Your task to perform on an android device: delete browsing data in the chrome app Image 0: 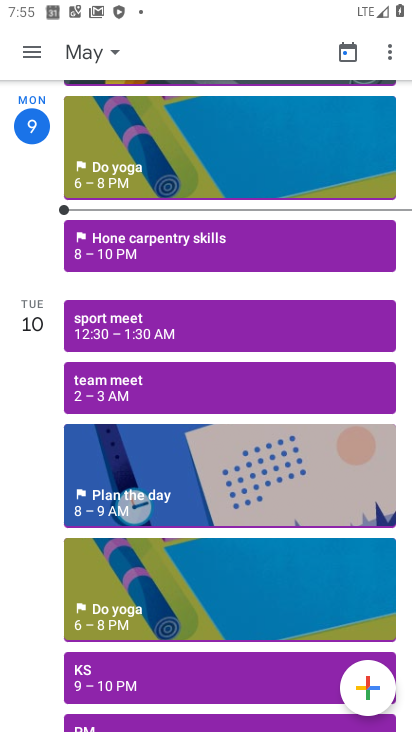
Step 0: press home button
Your task to perform on an android device: delete browsing data in the chrome app Image 1: 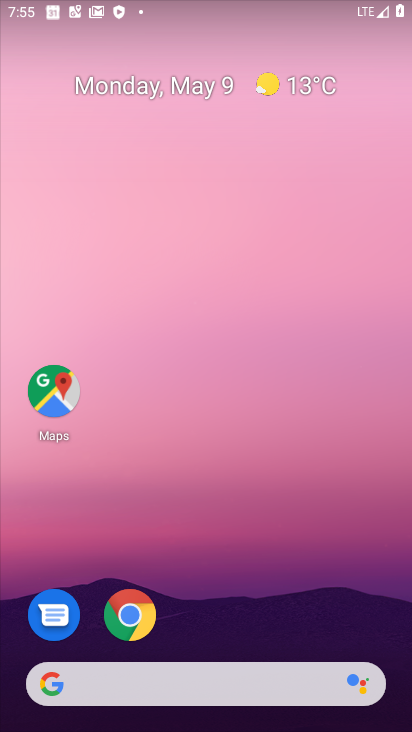
Step 1: click (129, 624)
Your task to perform on an android device: delete browsing data in the chrome app Image 2: 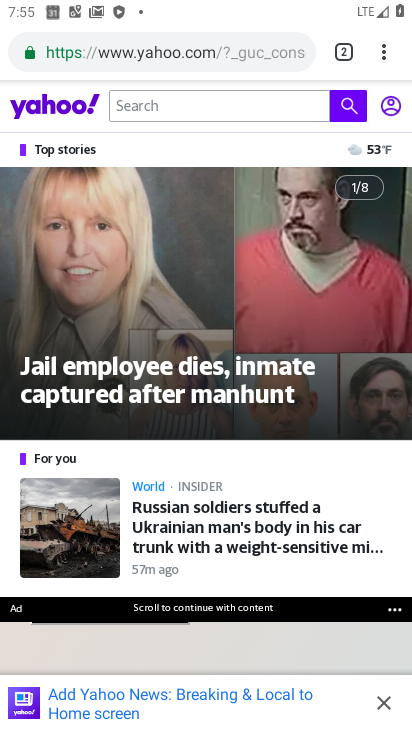
Step 2: click (374, 53)
Your task to perform on an android device: delete browsing data in the chrome app Image 3: 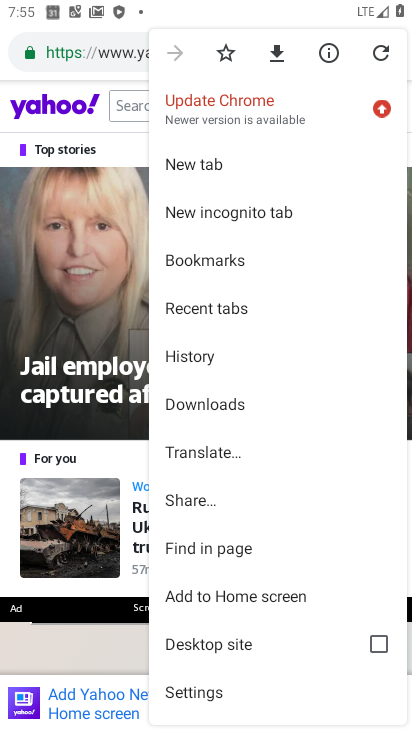
Step 3: click (188, 350)
Your task to perform on an android device: delete browsing data in the chrome app Image 4: 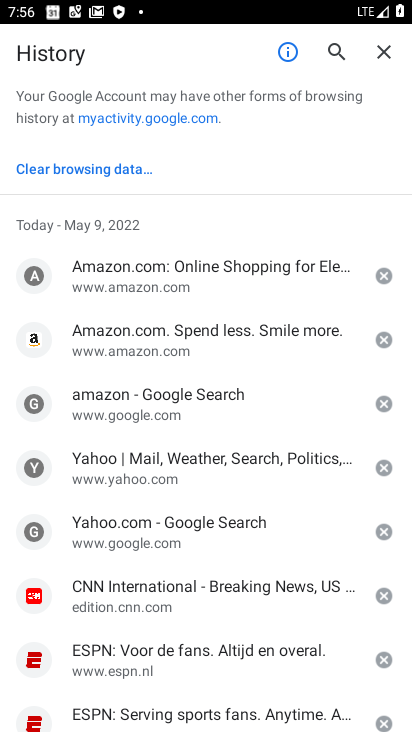
Step 4: click (132, 165)
Your task to perform on an android device: delete browsing data in the chrome app Image 5: 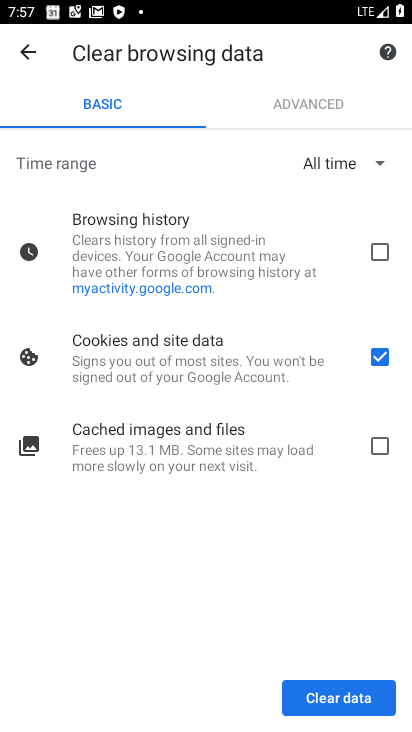
Step 5: click (348, 689)
Your task to perform on an android device: delete browsing data in the chrome app Image 6: 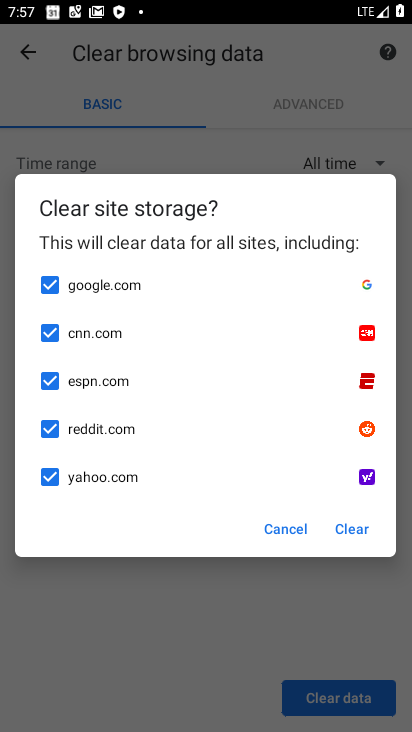
Step 6: click (359, 522)
Your task to perform on an android device: delete browsing data in the chrome app Image 7: 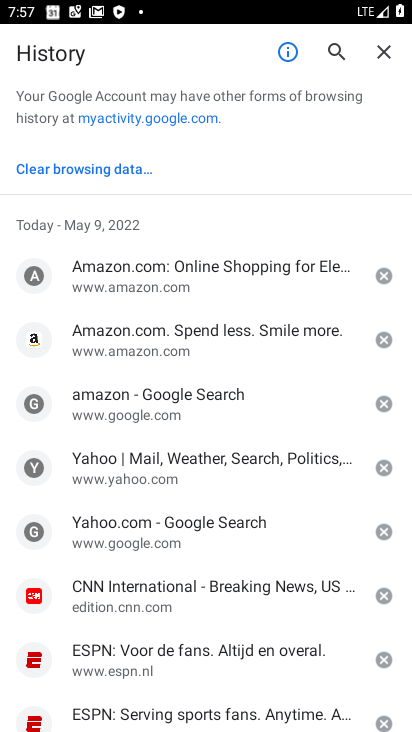
Step 7: click (114, 166)
Your task to perform on an android device: delete browsing data in the chrome app Image 8: 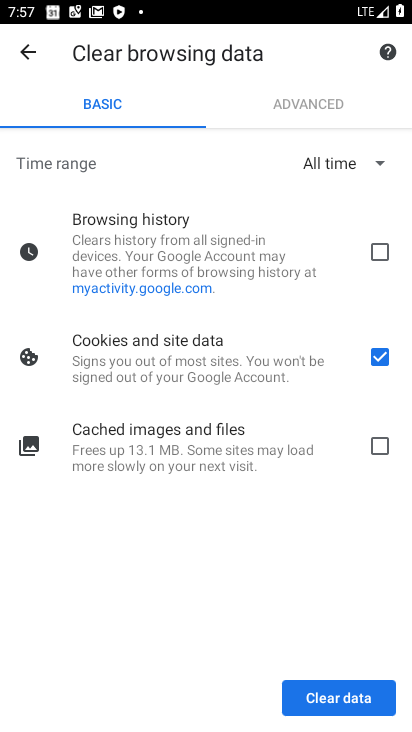
Step 8: click (379, 260)
Your task to perform on an android device: delete browsing data in the chrome app Image 9: 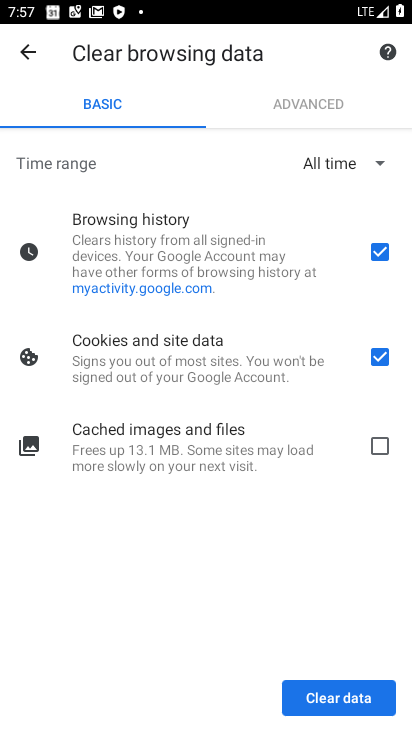
Step 9: click (380, 362)
Your task to perform on an android device: delete browsing data in the chrome app Image 10: 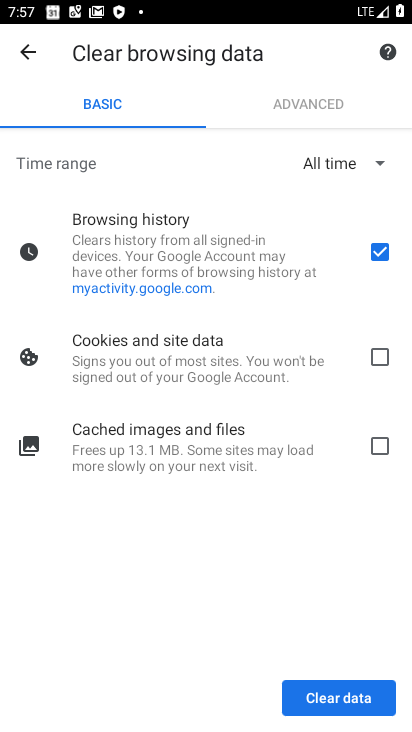
Step 10: click (329, 691)
Your task to perform on an android device: delete browsing data in the chrome app Image 11: 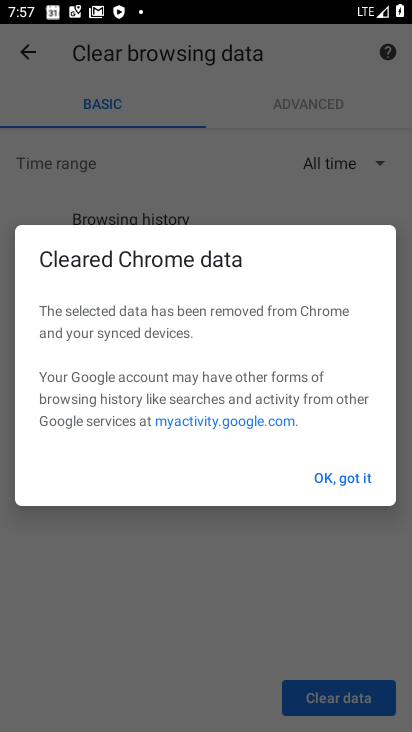
Step 11: click (355, 478)
Your task to perform on an android device: delete browsing data in the chrome app Image 12: 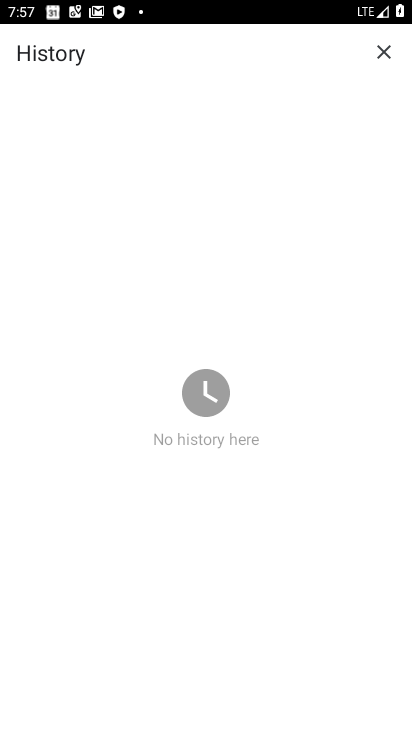
Step 12: task complete